Your task to perform on an android device: Do I have any events this weekend? Image 0: 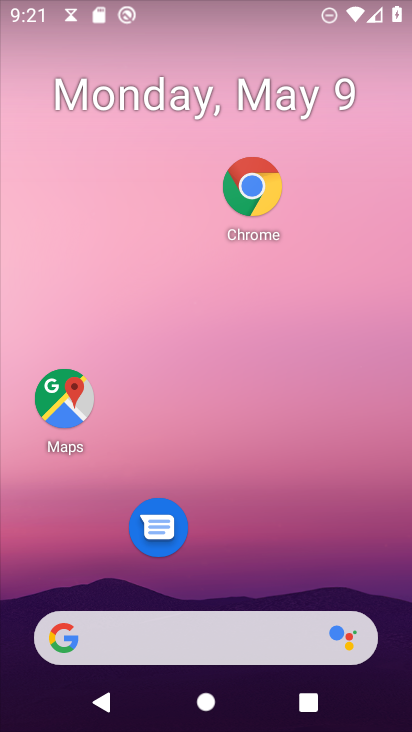
Step 0: drag from (217, 575) to (225, 191)
Your task to perform on an android device: Do I have any events this weekend? Image 1: 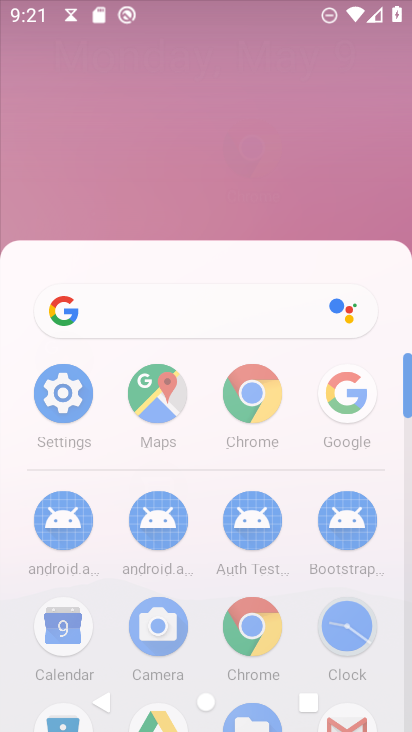
Step 1: click (245, 73)
Your task to perform on an android device: Do I have any events this weekend? Image 2: 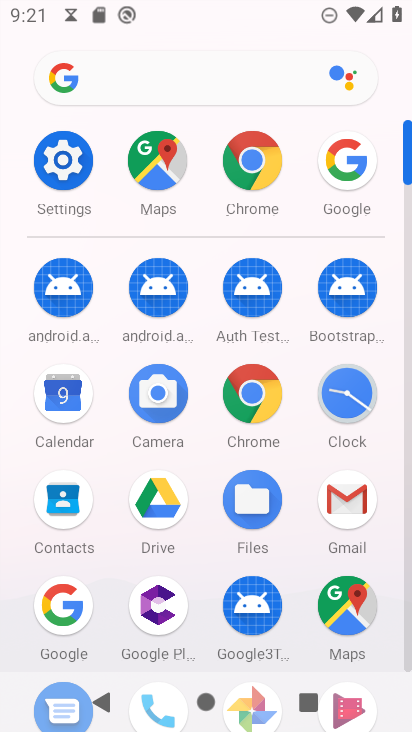
Step 2: click (60, 387)
Your task to perform on an android device: Do I have any events this weekend? Image 3: 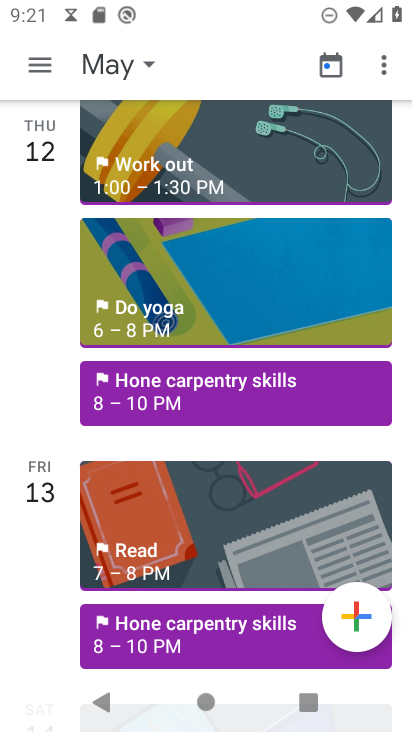
Step 3: click (143, 60)
Your task to perform on an android device: Do I have any events this weekend? Image 4: 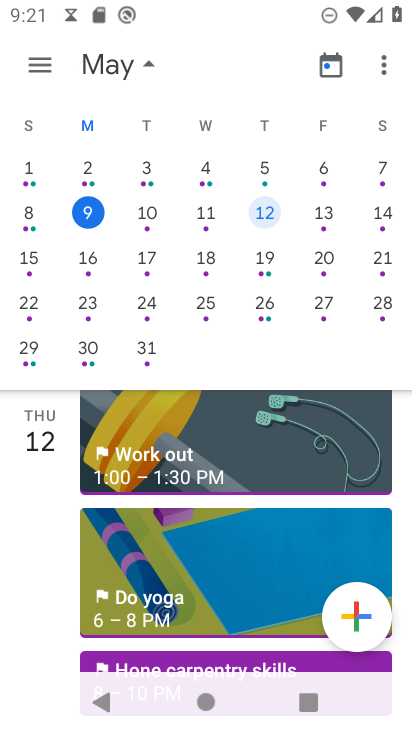
Step 4: click (87, 215)
Your task to perform on an android device: Do I have any events this weekend? Image 5: 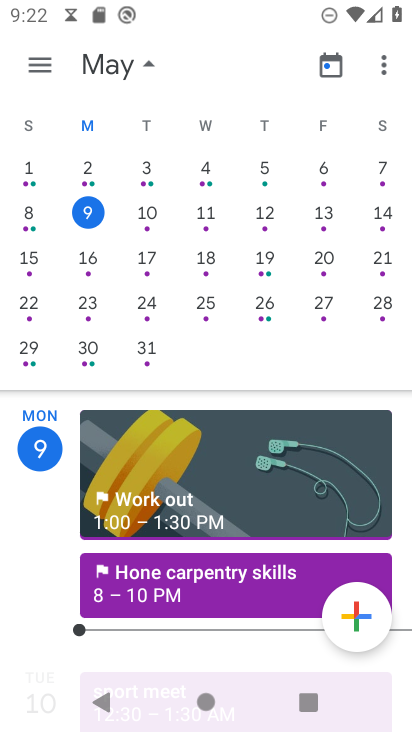
Step 5: task complete